Your task to perform on an android device: change the clock display to show seconds Image 0: 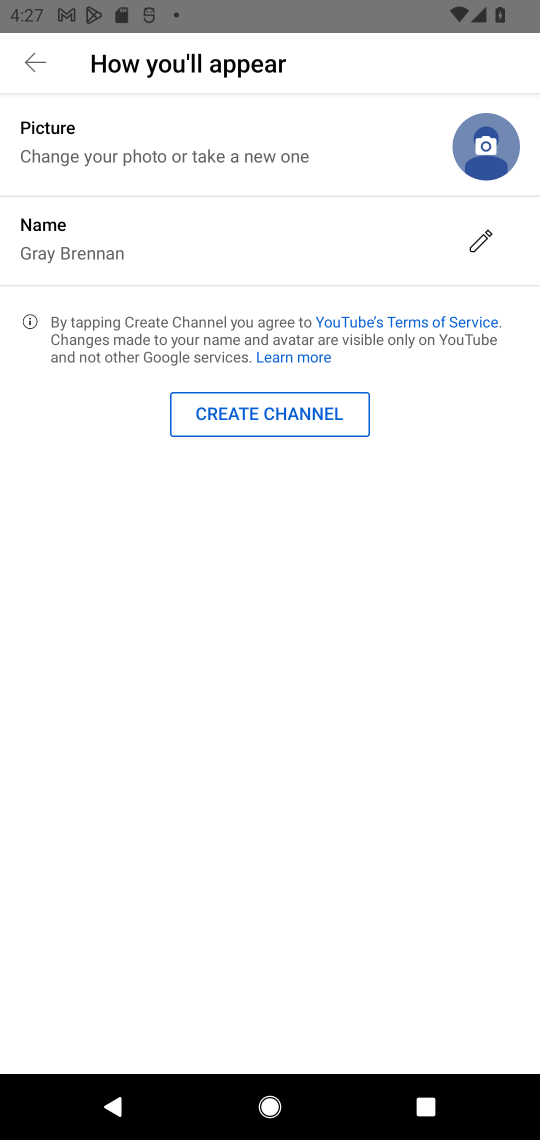
Step 0: press home button
Your task to perform on an android device: change the clock display to show seconds Image 1: 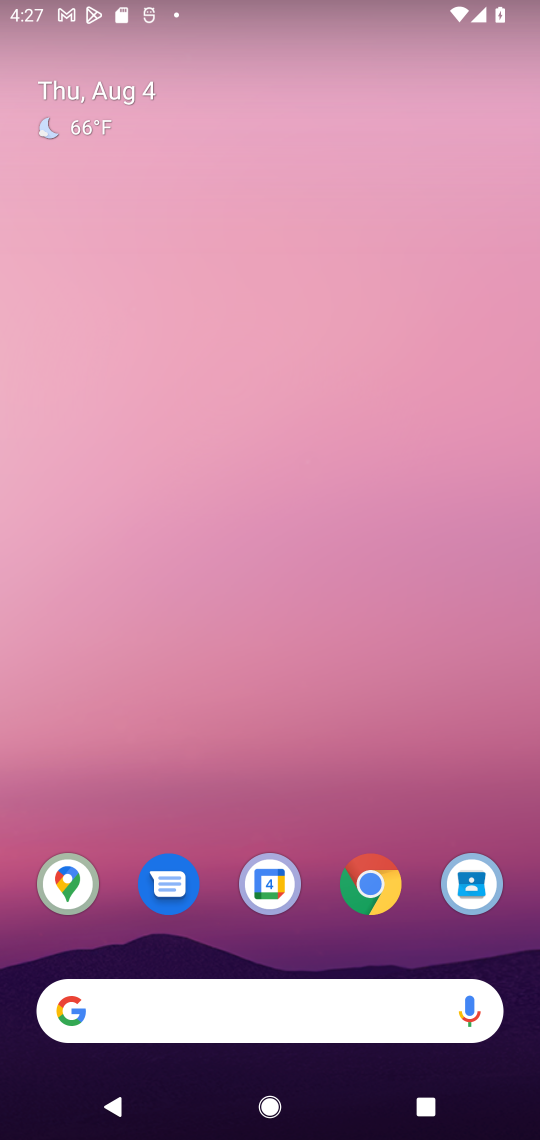
Step 1: drag from (209, 940) to (155, 5)
Your task to perform on an android device: change the clock display to show seconds Image 2: 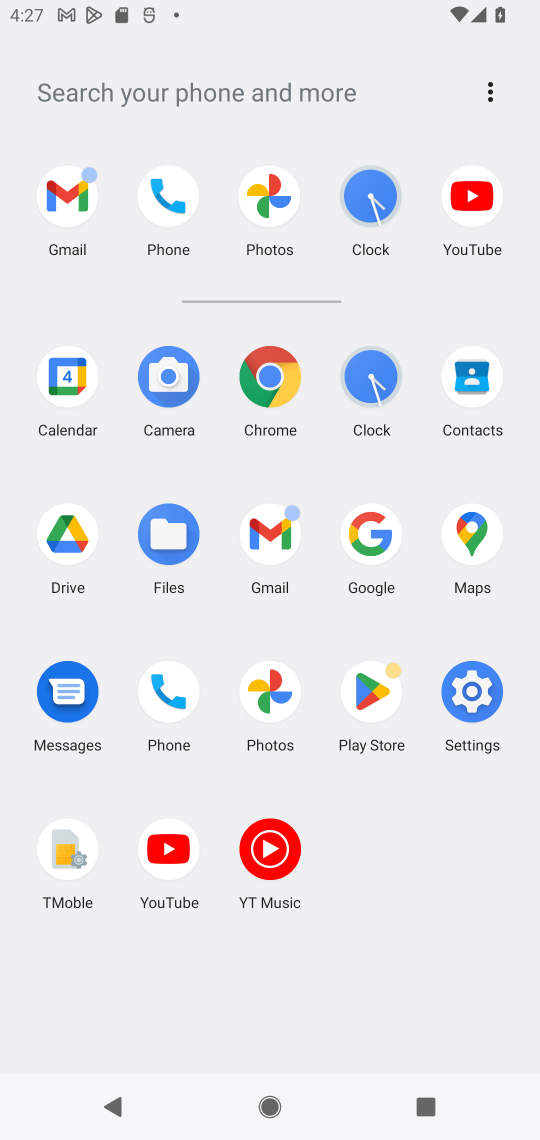
Step 2: click (364, 225)
Your task to perform on an android device: change the clock display to show seconds Image 3: 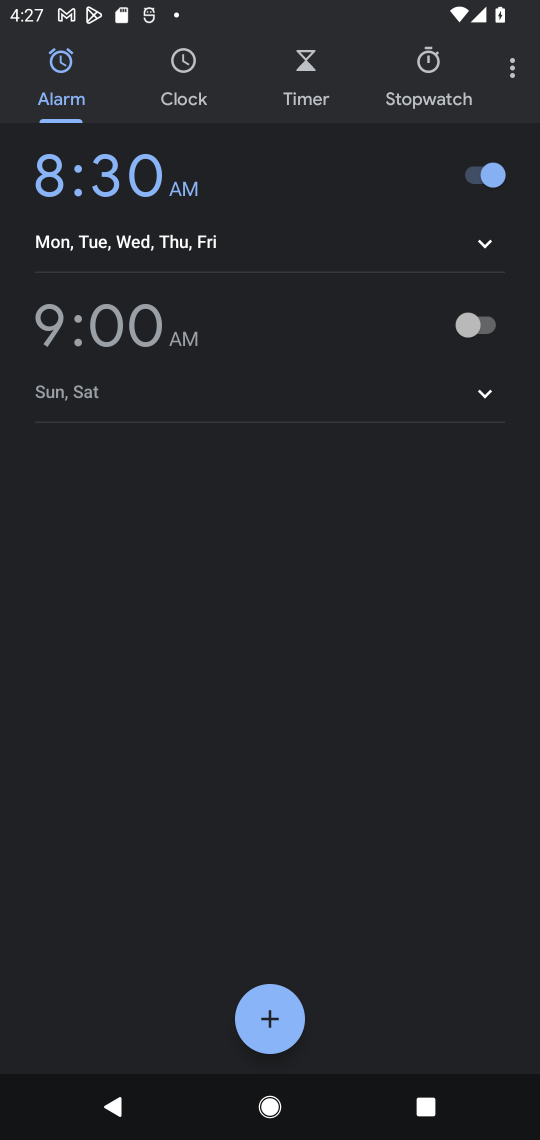
Step 3: click (498, 75)
Your task to perform on an android device: change the clock display to show seconds Image 4: 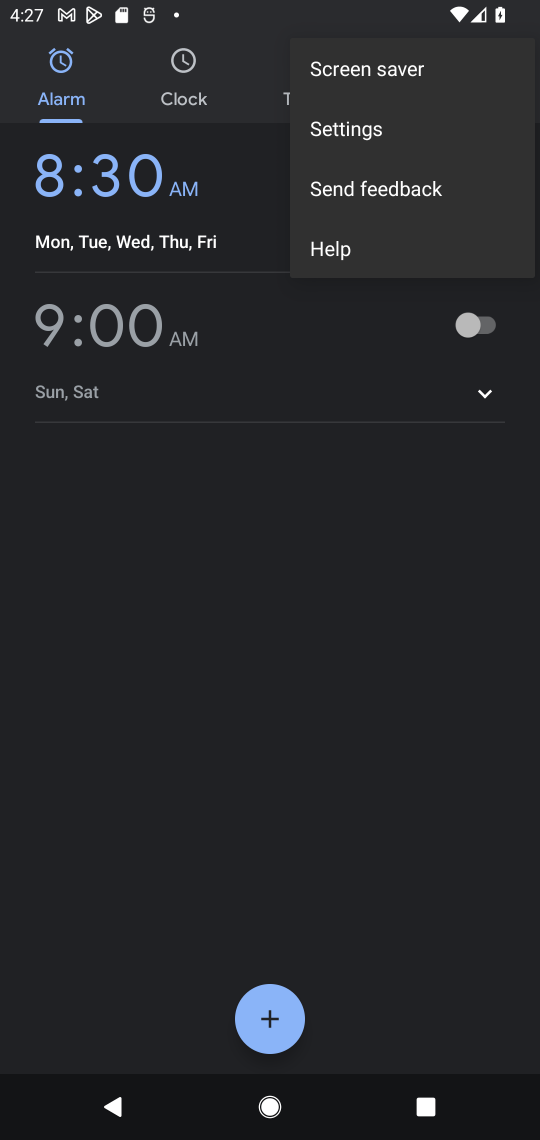
Step 4: click (354, 141)
Your task to perform on an android device: change the clock display to show seconds Image 5: 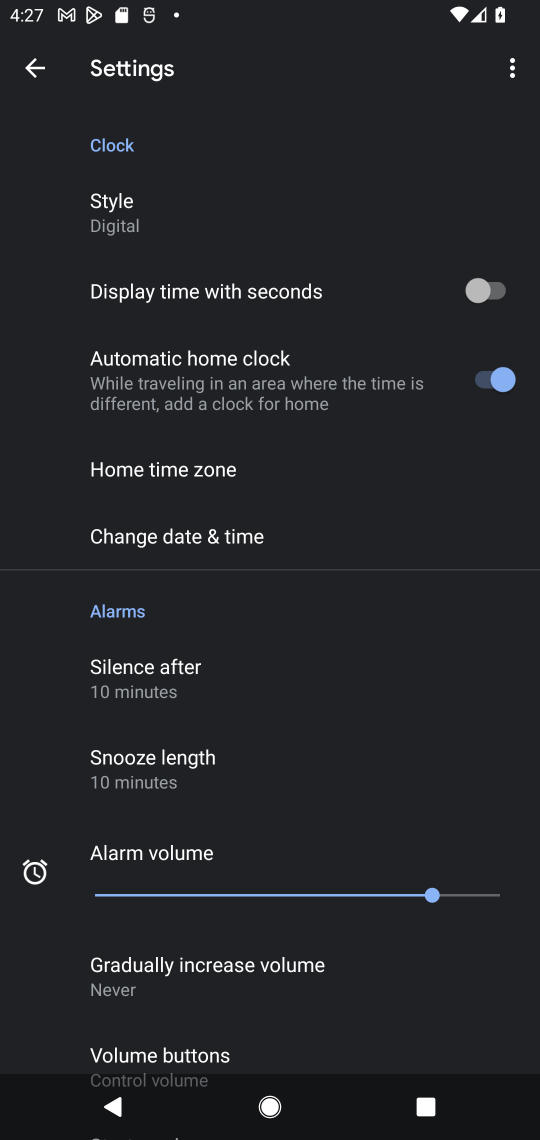
Step 5: click (446, 286)
Your task to perform on an android device: change the clock display to show seconds Image 6: 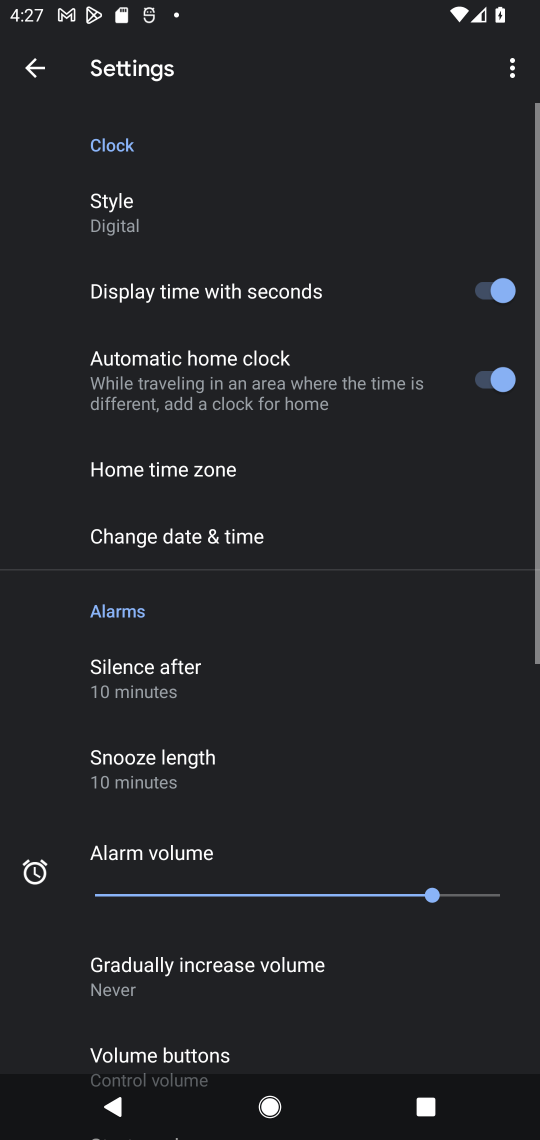
Step 6: task complete